Your task to perform on an android device: open chrome privacy settings Image 0: 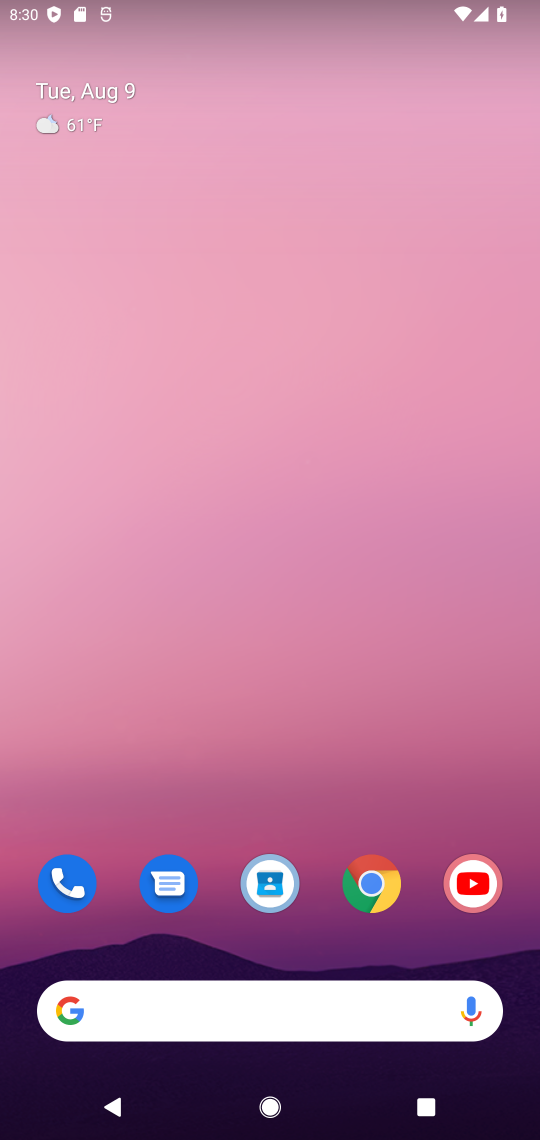
Step 0: drag from (343, 765) to (360, 21)
Your task to perform on an android device: open chrome privacy settings Image 1: 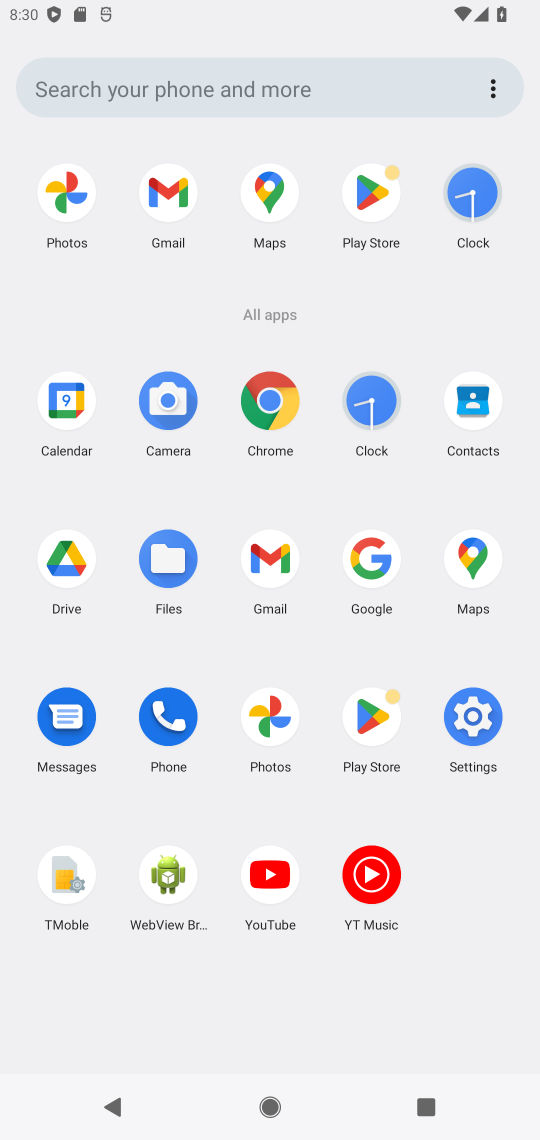
Step 1: click (272, 398)
Your task to perform on an android device: open chrome privacy settings Image 2: 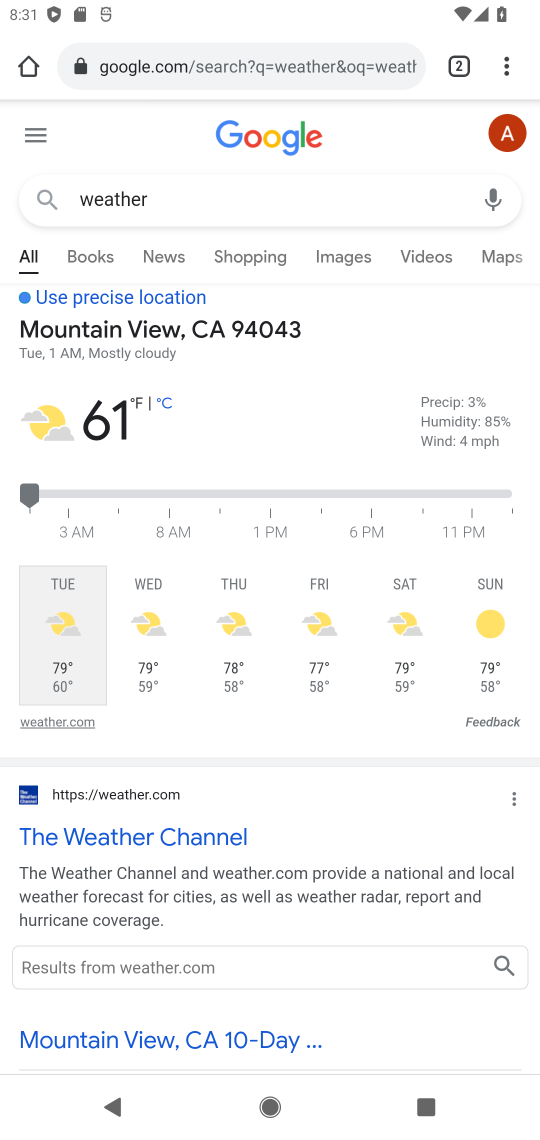
Step 2: drag from (498, 63) to (350, 873)
Your task to perform on an android device: open chrome privacy settings Image 3: 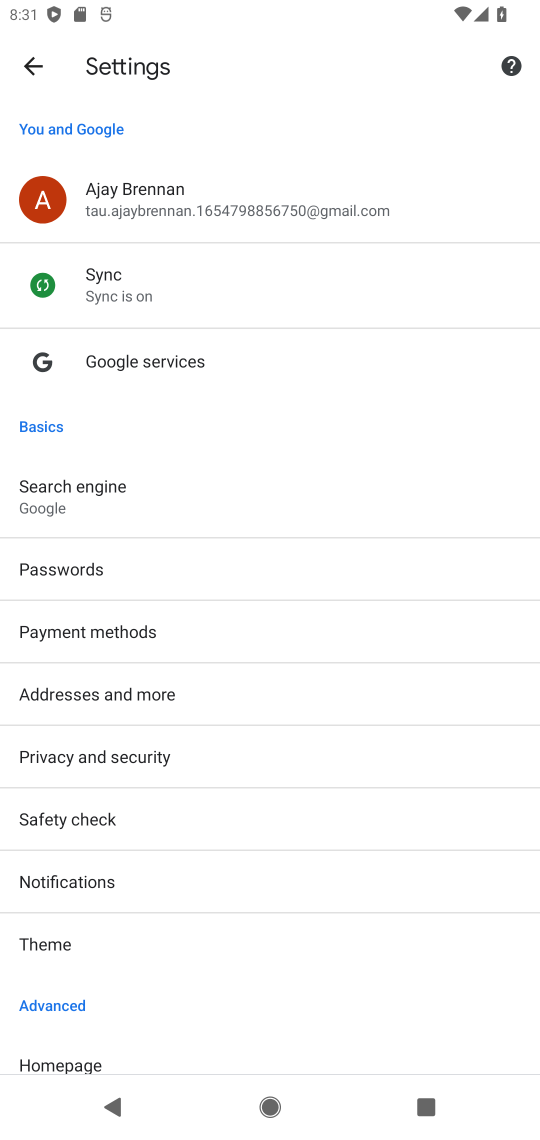
Step 3: drag from (256, 979) to (307, 519)
Your task to perform on an android device: open chrome privacy settings Image 4: 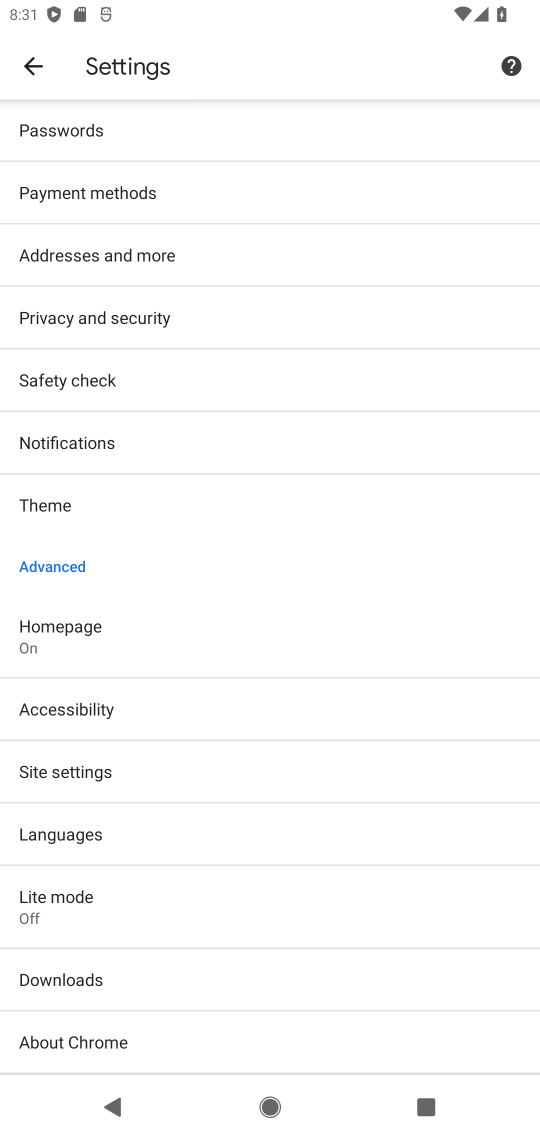
Step 4: drag from (274, 730) to (342, 315)
Your task to perform on an android device: open chrome privacy settings Image 5: 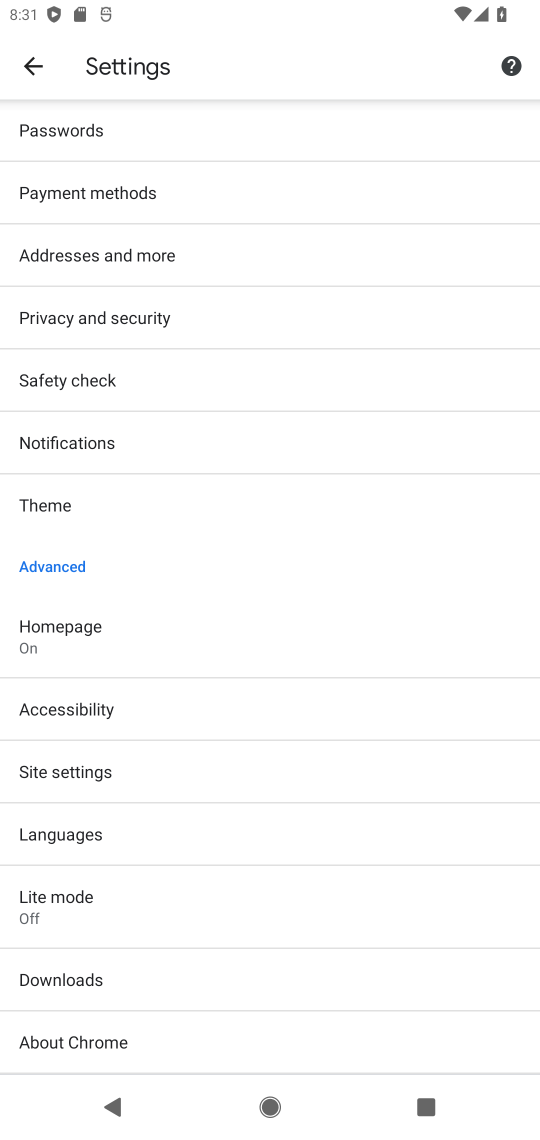
Step 5: drag from (431, 307) to (429, 213)
Your task to perform on an android device: open chrome privacy settings Image 6: 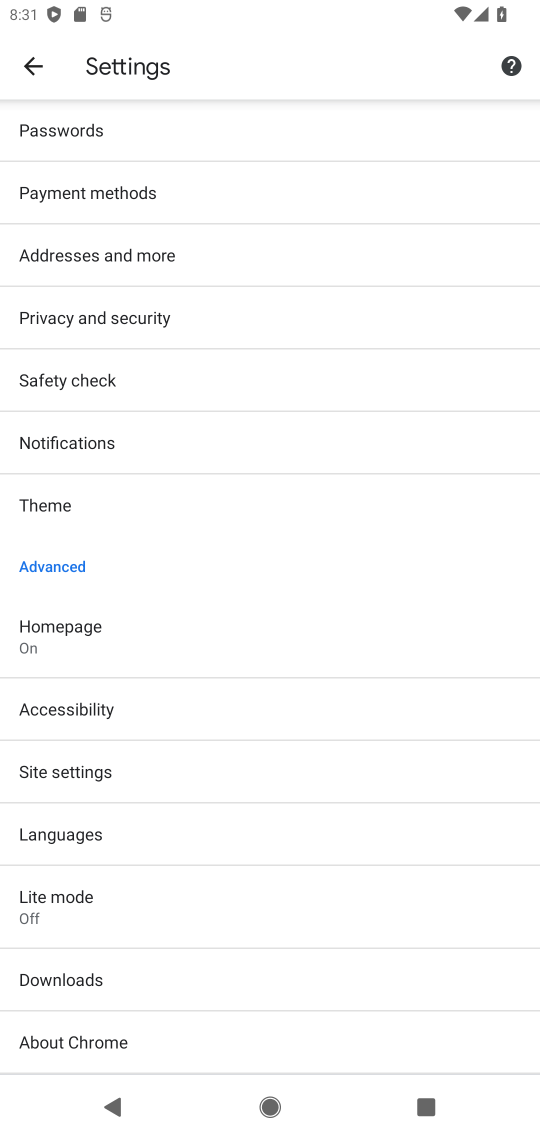
Step 6: click (138, 321)
Your task to perform on an android device: open chrome privacy settings Image 7: 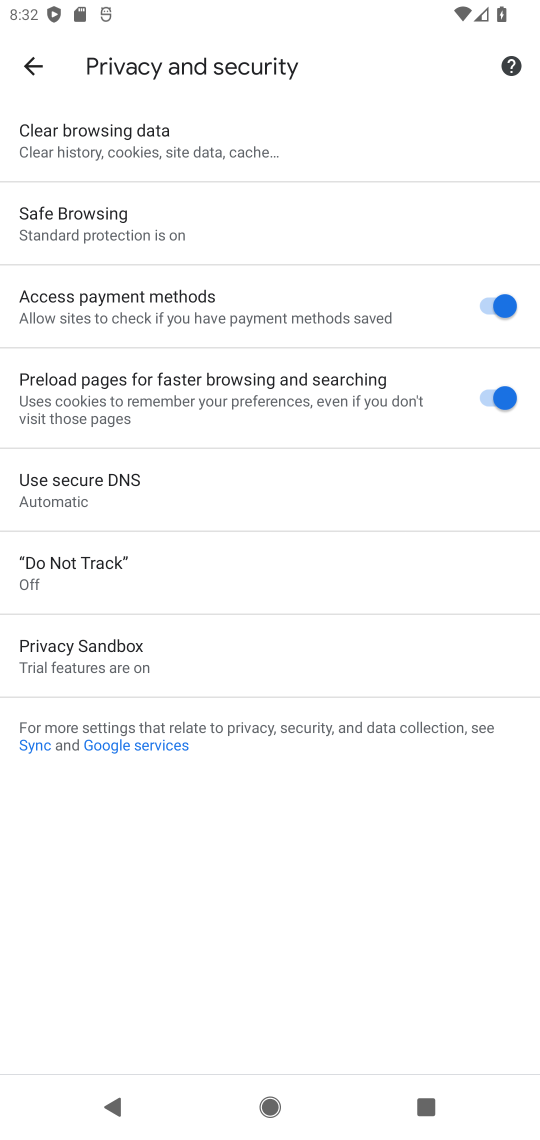
Step 7: task complete